Your task to perform on an android device: Empty the shopping cart on ebay.com. Search for "bose soundlink" on ebay.com, select the first entry, and add it to the cart. Image 0: 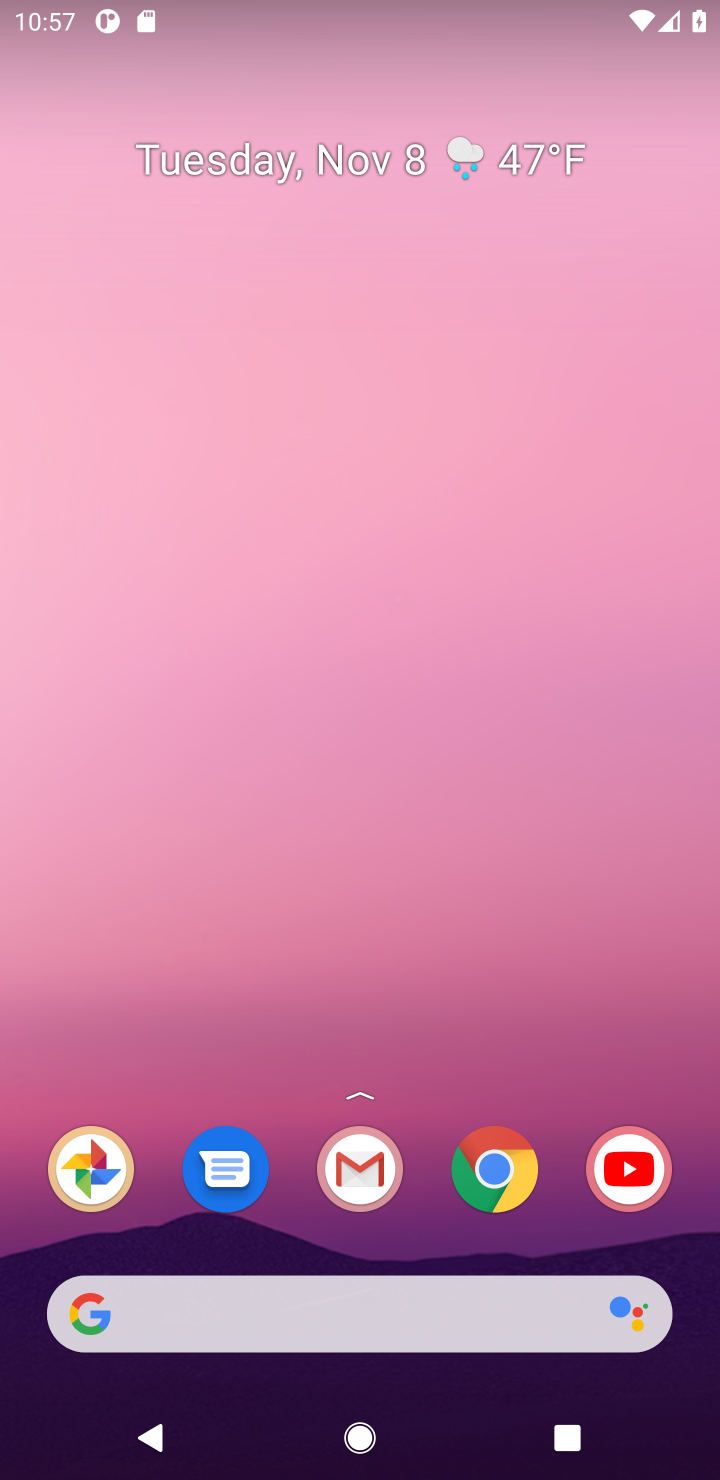
Step 0: click (495, 1166)
Your task to perform on an android device: Empty the shopping cart on ebay.com. Search for "bose soundlink" on ebay.com, select the first entry, and add it to the cart. Image 1: 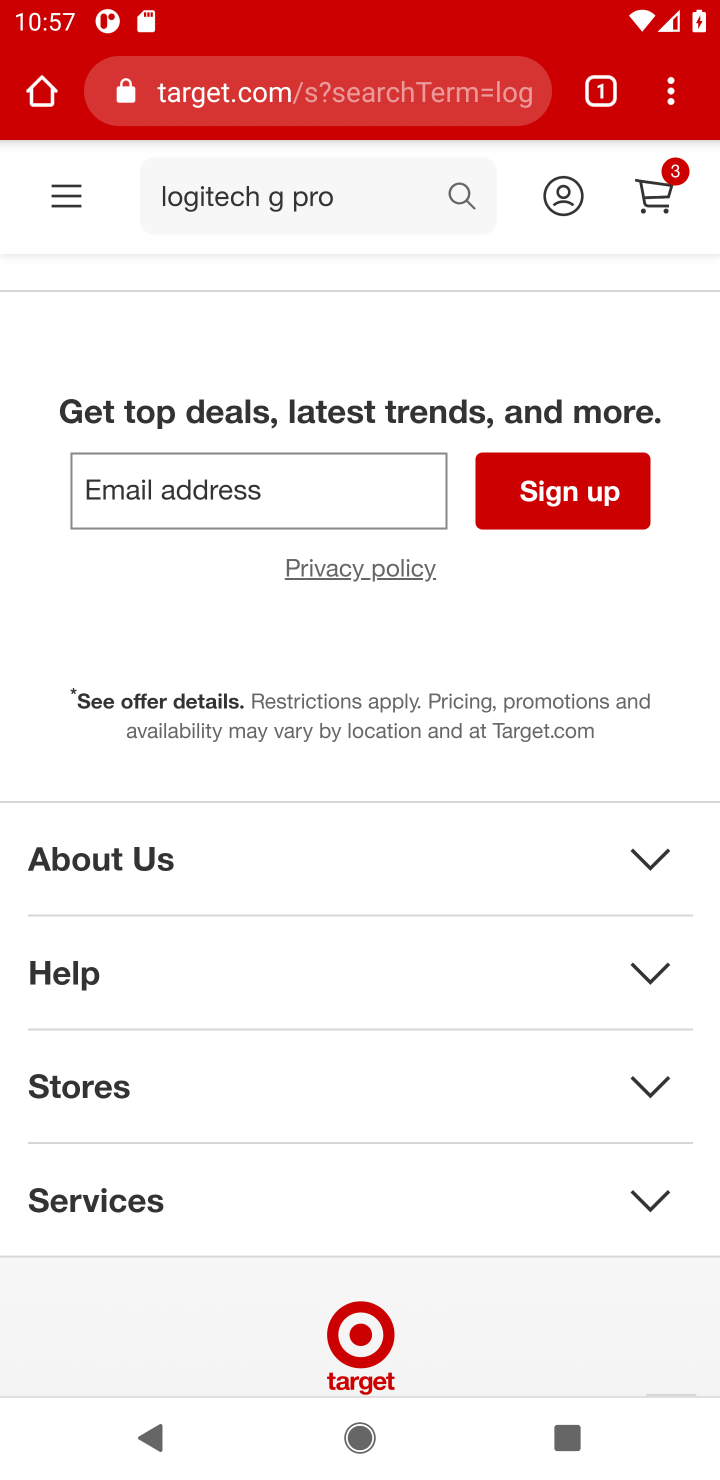
Step 1: click (368, 108)
Your task to perform on an android device: Empty the shopping cart on ebay.com. Search for "bose soundlink" on ebay.com, select the first entry, and add it to the cart. Image 2: 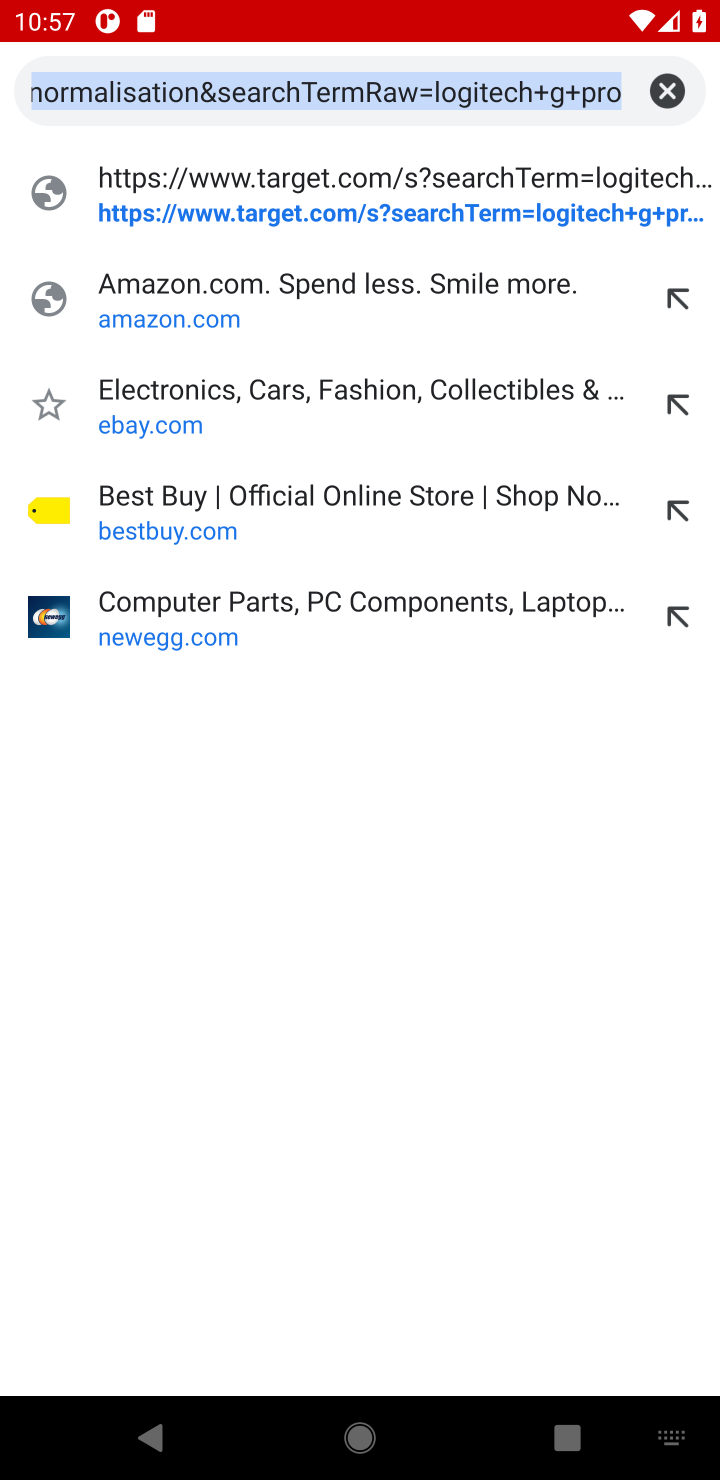
Step 2: type "ebay.com"
Your task to perform on an android device: Empty the shopping cart on ebay.com. Search for "bose soundlink" on ebay.com, select the first entry, and add it to the cart. Image 3: 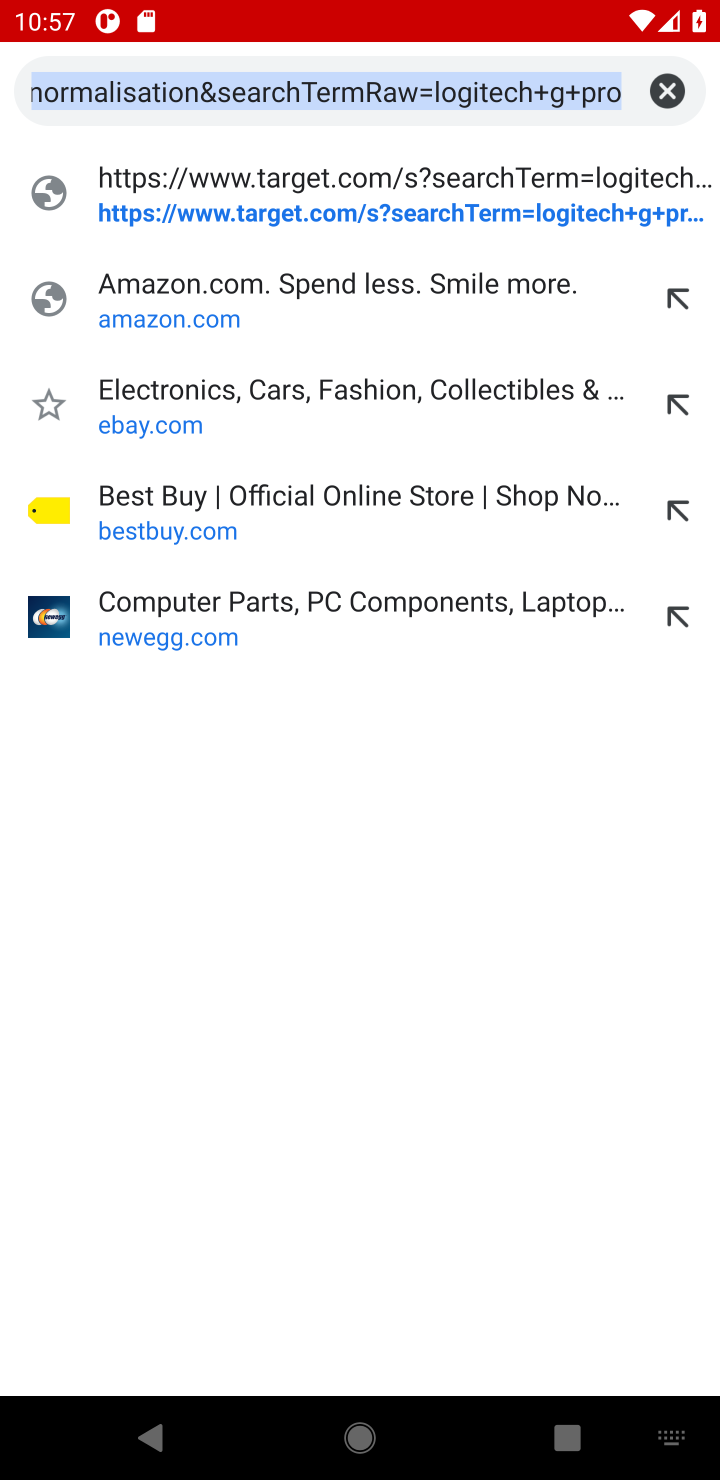
Step 3: click (665, 92)
Your task to perform on an android device: Empty the shopping cart on ebay.com. Search for "bose soundlink" on ebay.com, select the first entry, and add it to the cart. Image 4: 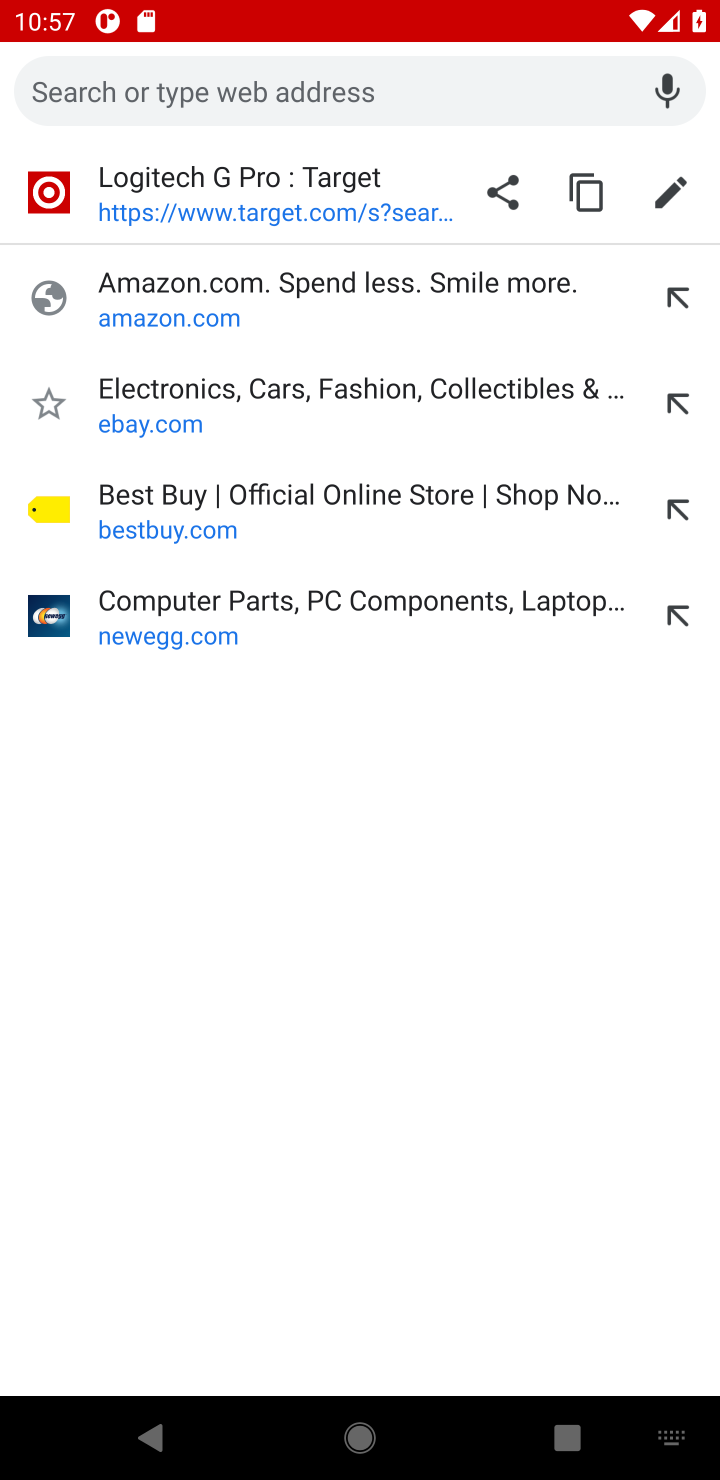
Step 4: click (198, 302)
Your task to perform on an android device: Empty the shopping cart on ebay.com. Search for "bose soundlink" on ebay.com, select the first entry, and add it to the cart. Image 5: 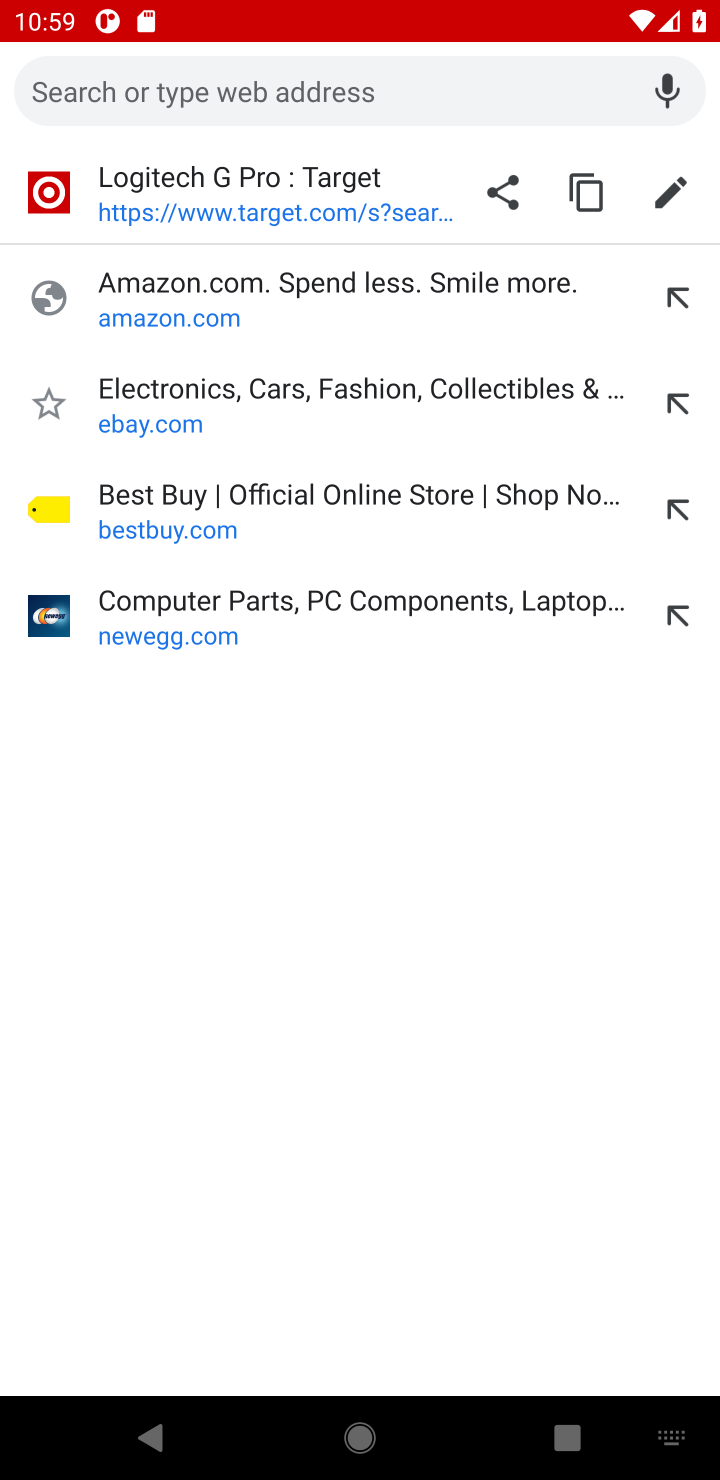
Step 5: click (330, 97)
Your task to perform on an android device: Empty the shopping cart on ebay.com. Search for "bose soundlink" on ebay.com, select the first entry, and add it to the cart. Image 6: 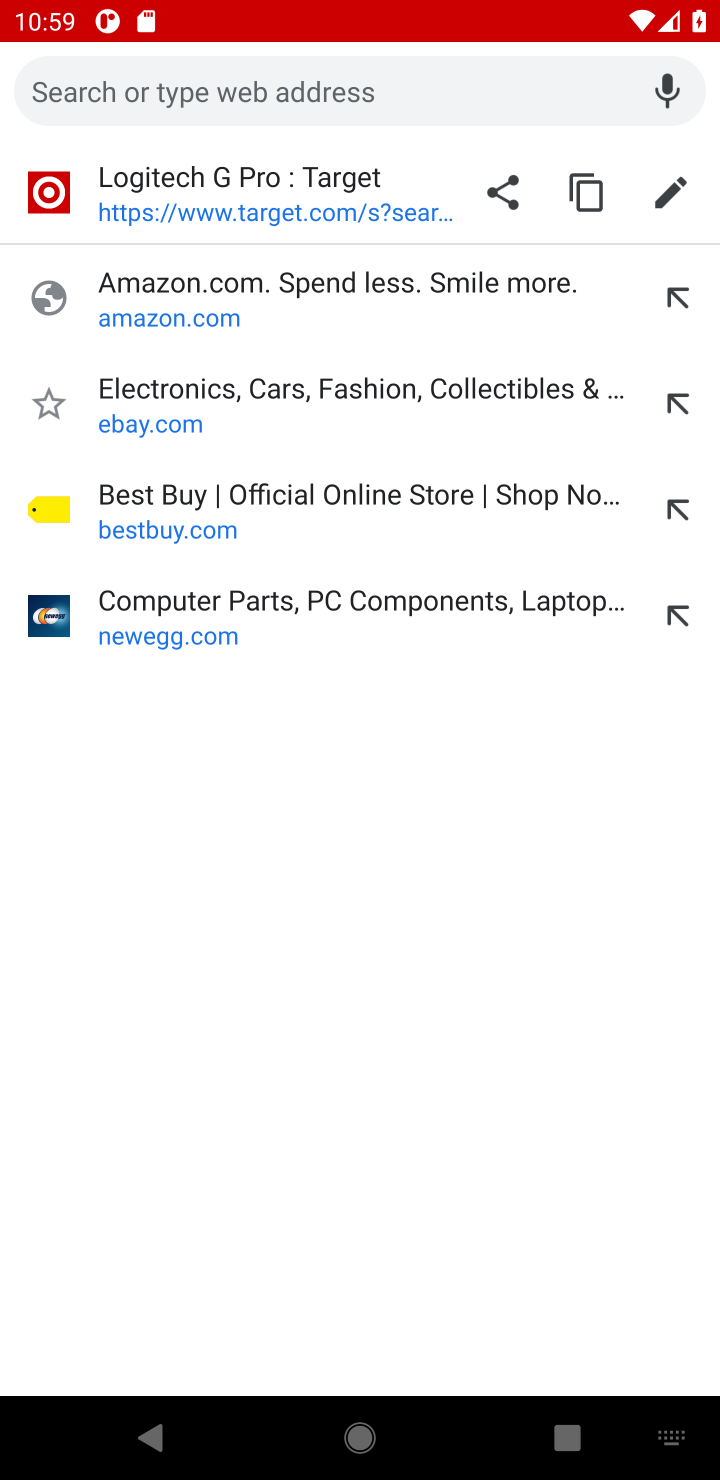
Step 6: type "ebay.com"
Your task to perform on an android device: Empty the shopping cart on ebay.com. Search for "bose soundlink" on ebay.com, select the first entry, and add it to the cart. Image 7: 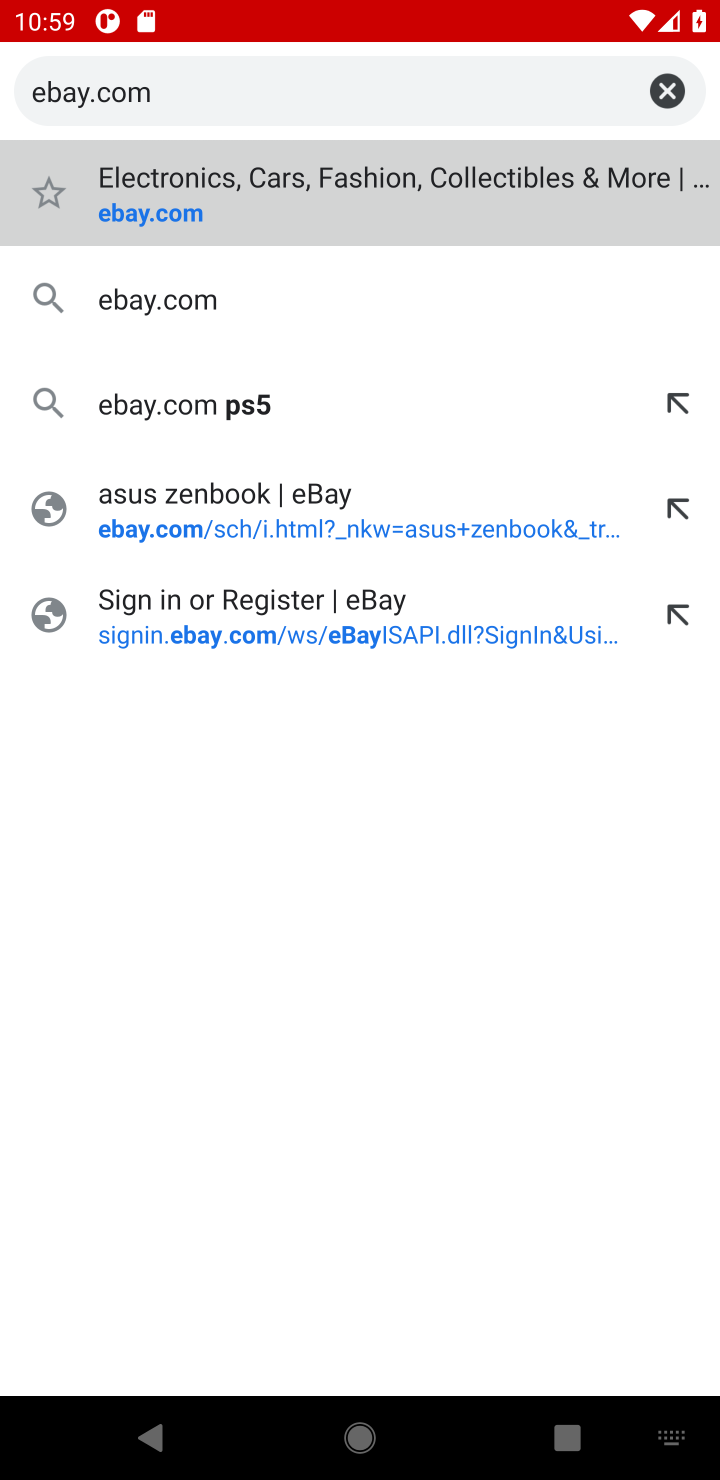
Step 7: click (158, 297)
Your task to perform on an android device: Empty the shopping cart on ebay.com. Search for "bose soundlink" on ebay.com, select the first entry, and add it to the cart. Image 8: 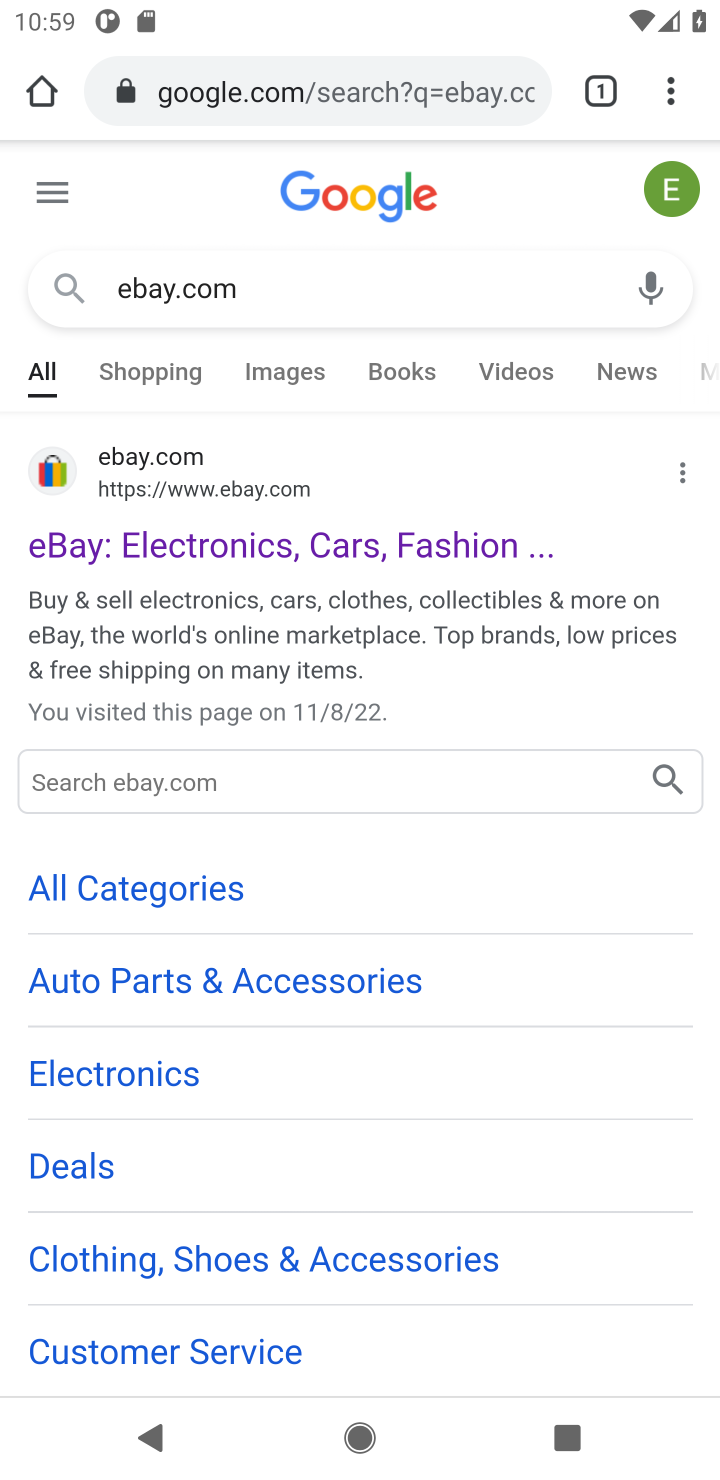
Step 8: click (237, 495)
Your task to perform on an android device: Empty the shopping cart on ebay.com. Search for "bose soundlink" on ebay.com, select the first entry, and add it to the cart. Image 9: 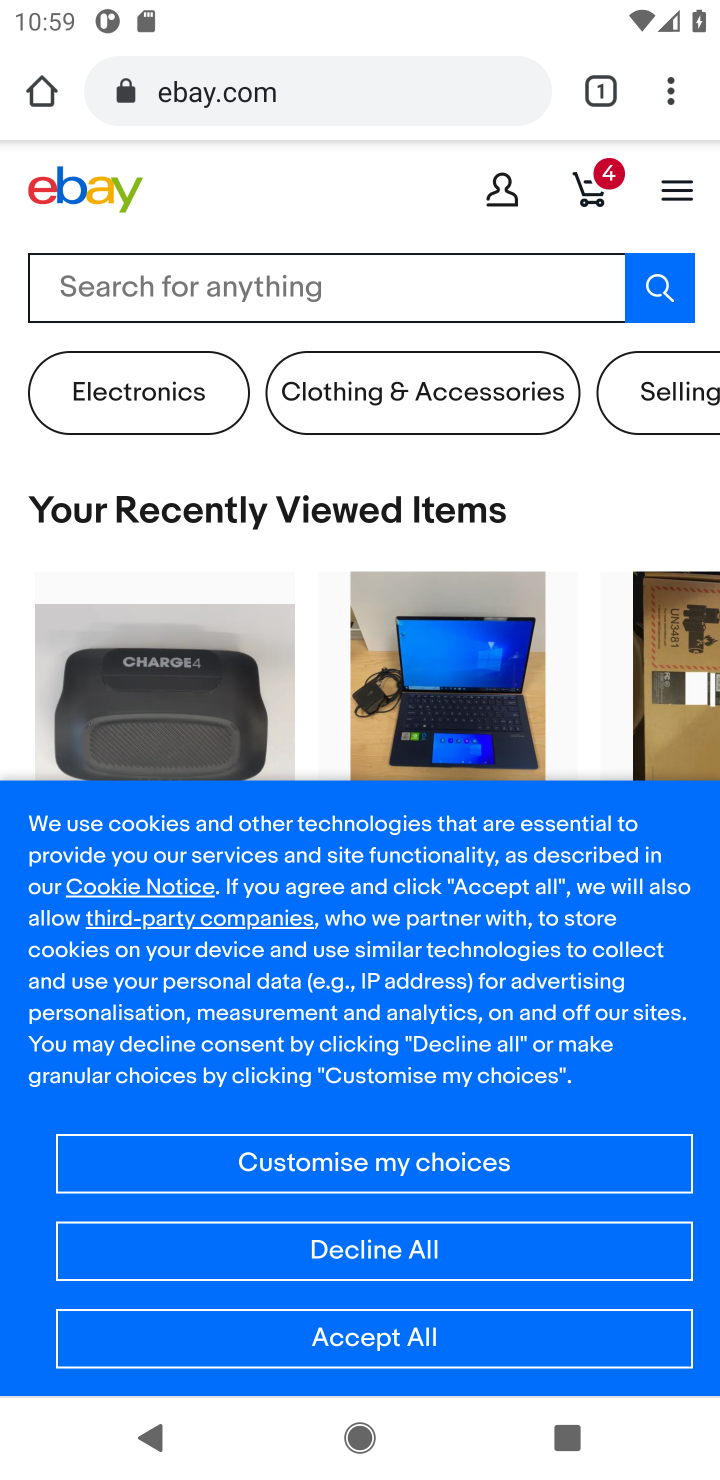
Step 9: click (595, 193)
Your task to perform on an android device: Empty the shopping cart on ebay.com. Search for "bose soundlink" on ebay.com, select the first entry, and add it to the cart. Image 10: 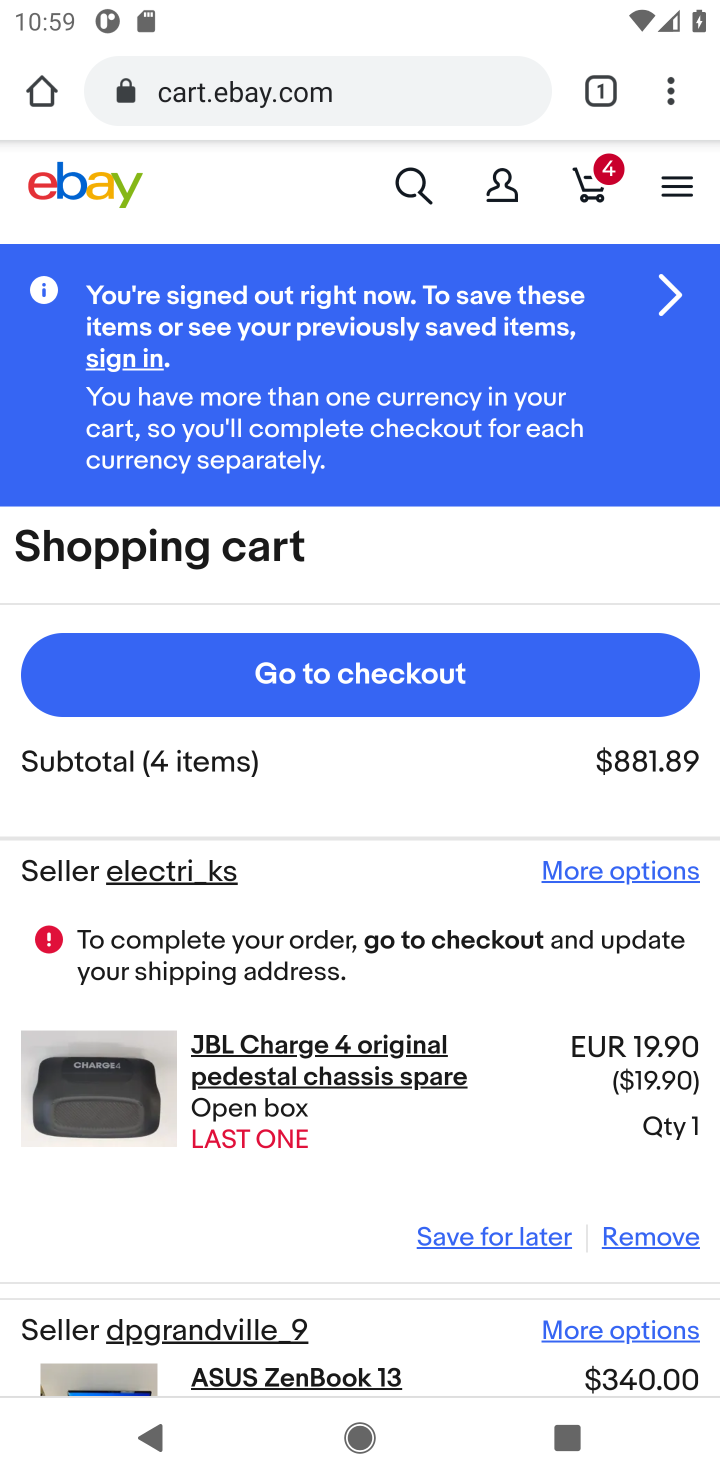
Step 10: click (640, 1234)
Your task to perform on an android device: Empty the shopping cart on ebay.com. Search for "bose soundlink" on ebay.com, select the first entry, and add it to the cart. Image 11: 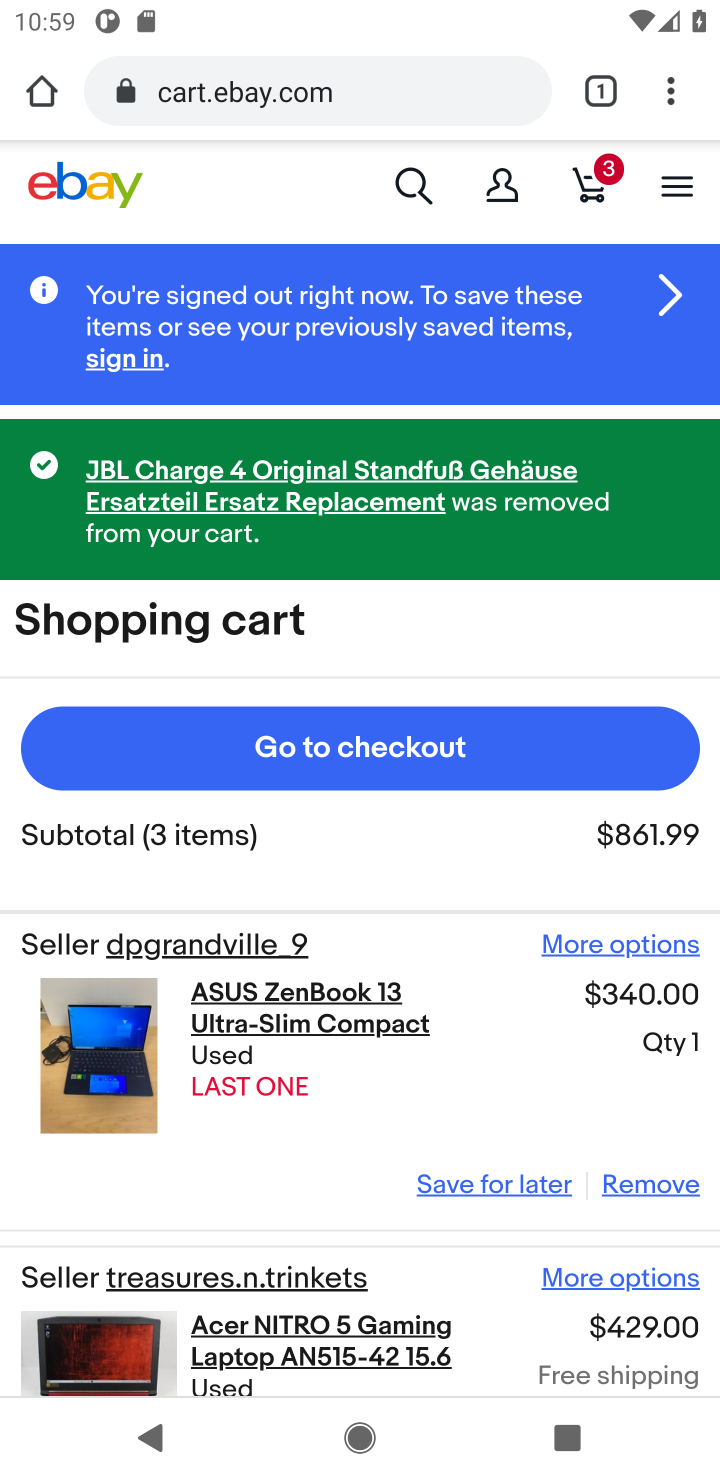
Step 11: click (665, 1177)
Your task to perform on an android device: Empty the shopping cart on ebay.com. Search for "bose soundlink" on ebay.com, select the first entry, and add it to the cart. Image 12: 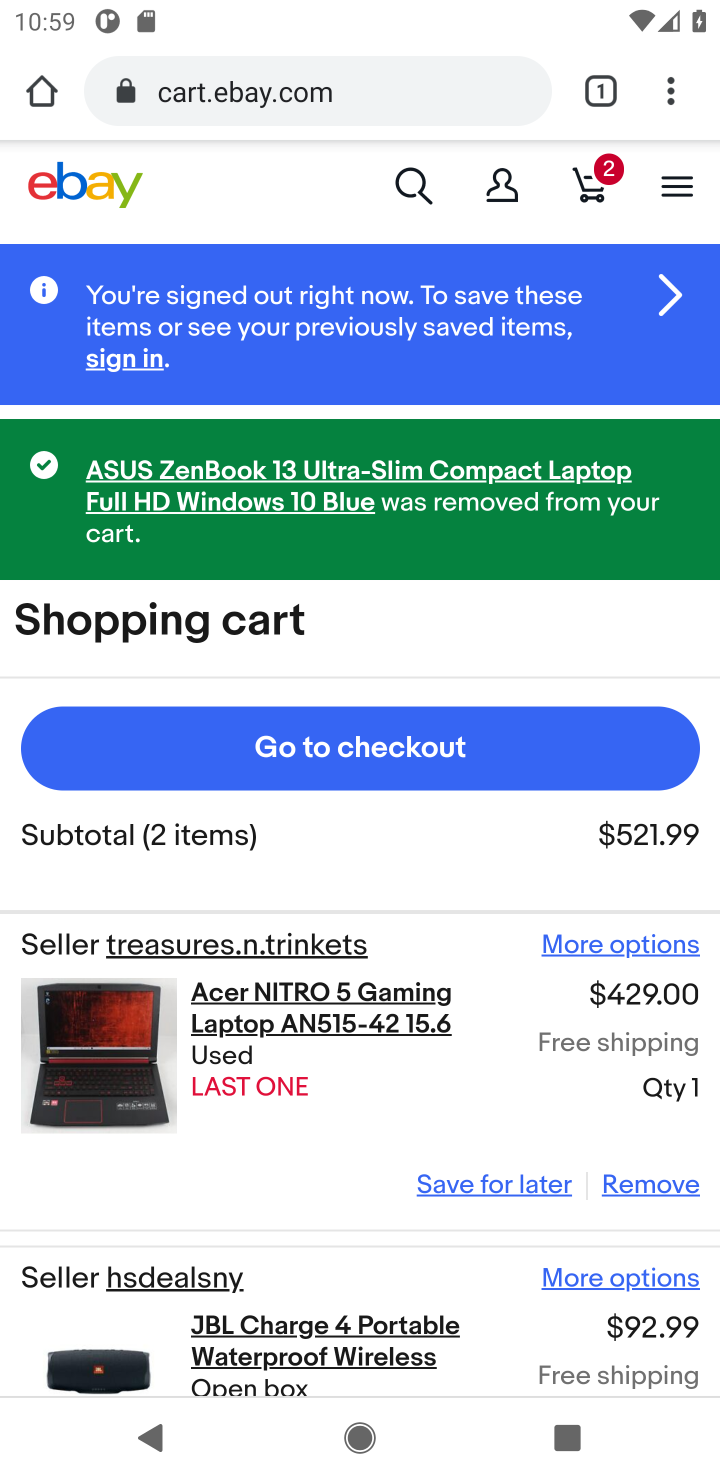
Step 12: click (656, 1189)
Your task to perform on an android device: Empty the shopping cart on ebay.com. Search for "bose soundlink" on ebay.com, select the first entry, and add it to the cart. Image 13: 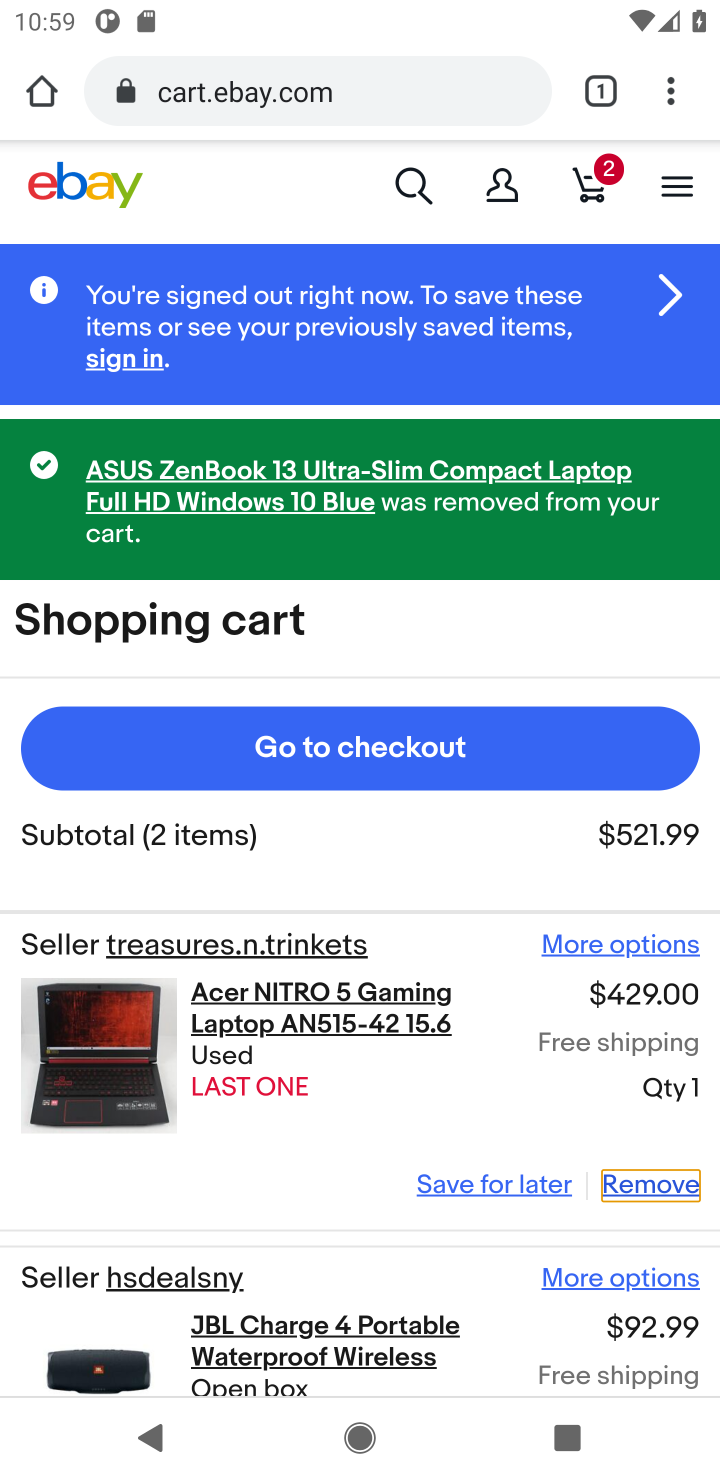
Step 13: click (656, 1189)
Your task to perform on an android device: Empty the shopping cart on ebay.com. Search for "bose soundlink" on ebay.com, select the first entry, and add it to the cart. Image 14: 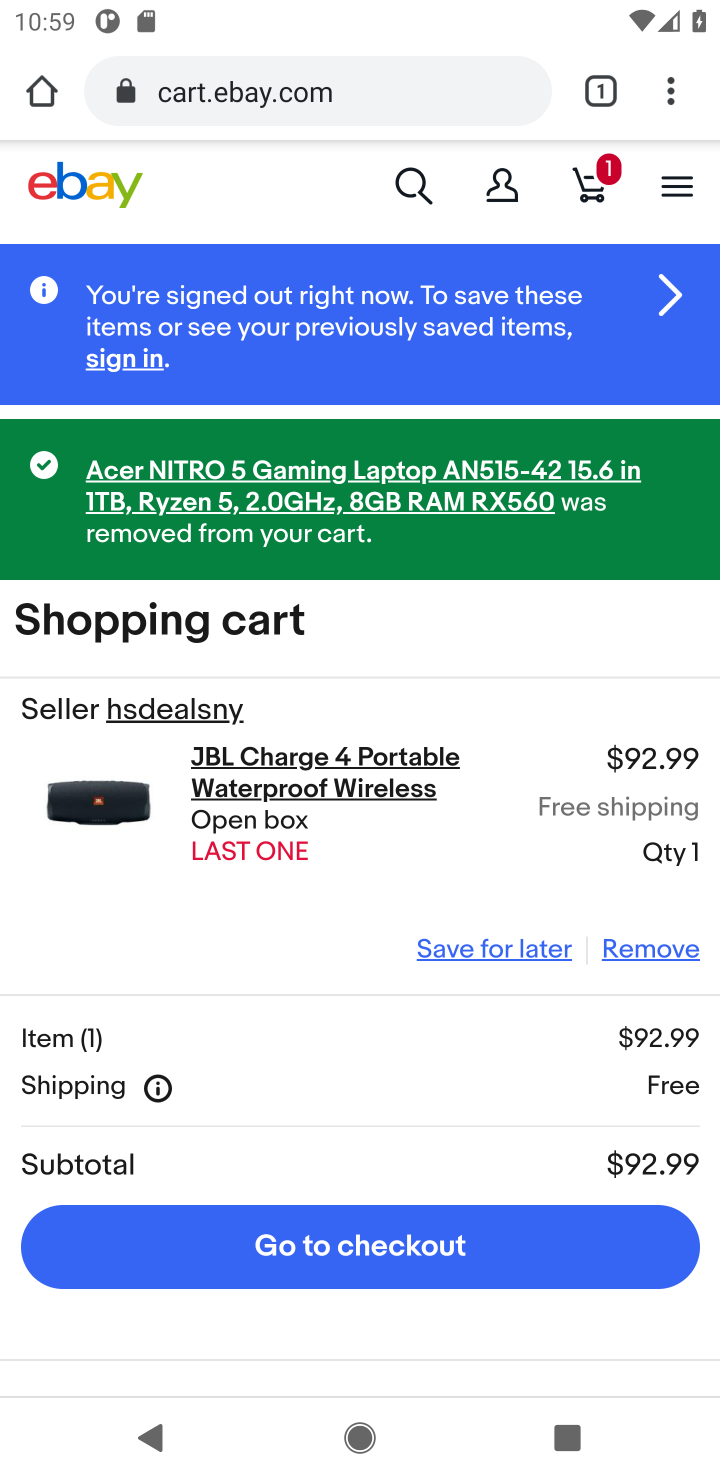
Step 14: click (646, 942)
Your task to perform on an android device: Empty the shopping cart on ebay.com. Search for "bose soundlink" on ebay.com, select the first entry, and add it to the cart. Image 15: 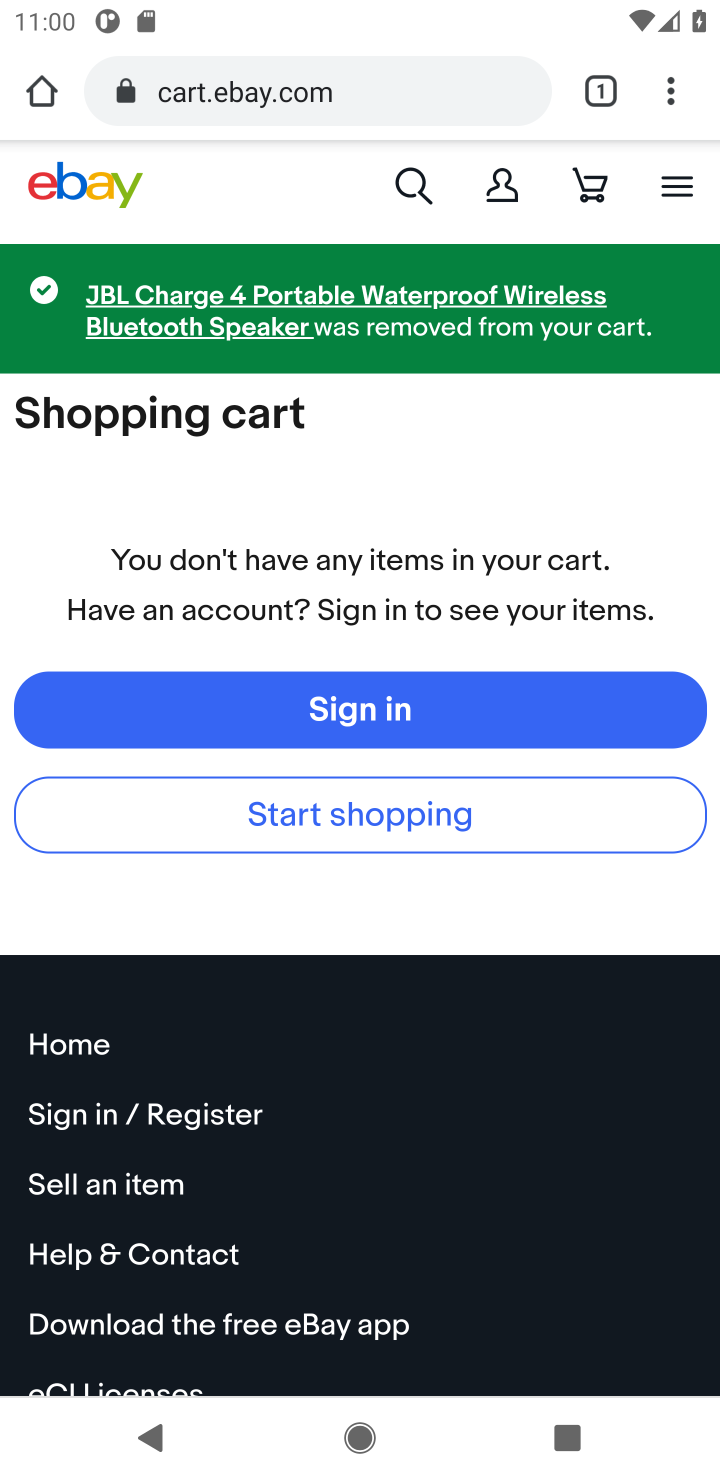
Step 15: click (413, 186)
Your task to perform on an android device: Empty the shopping cart on ebay.com. Search for "bose soundlink" on ebay.com, select the first entry, and add it to the cart. Image 16: 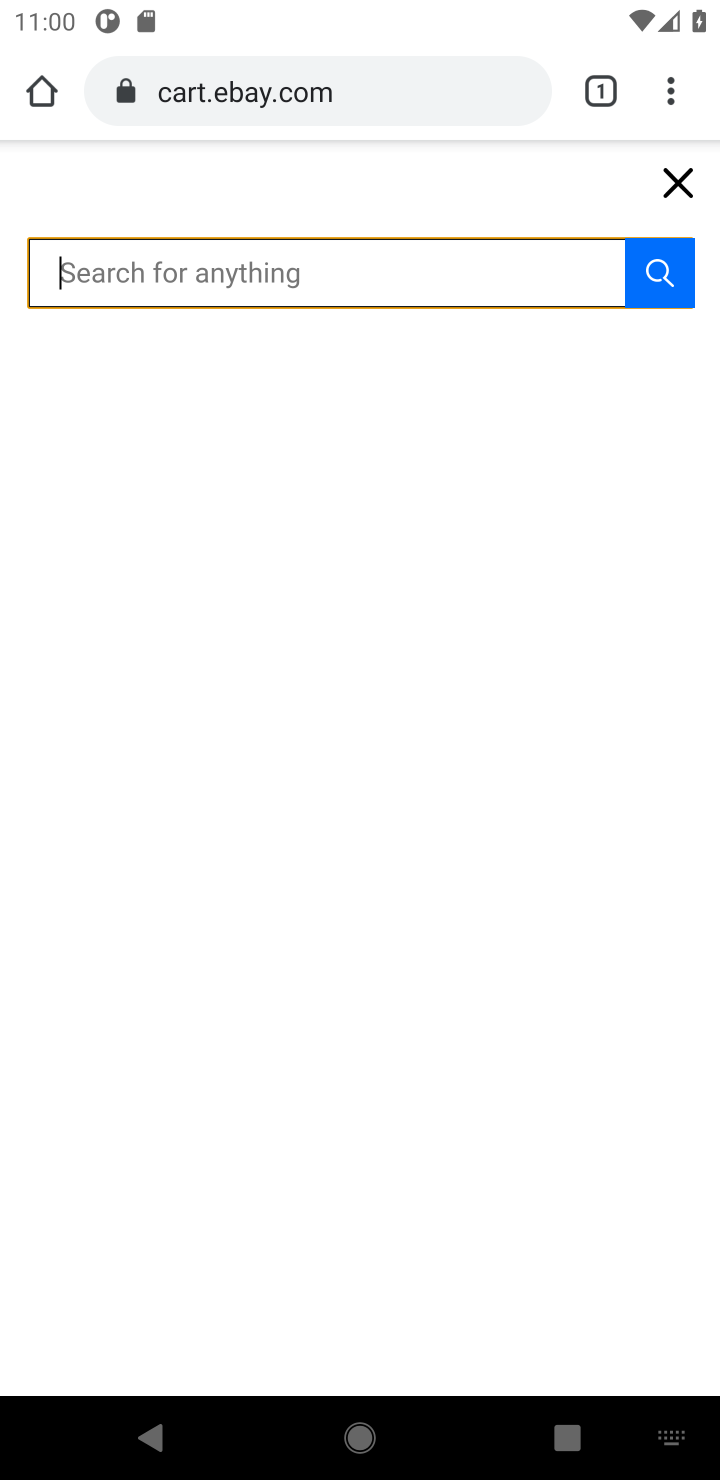
Step 16: type "bose soundlink"
Your task to perform on an android device: Empty the shopping cart on ebay.com. Search for "bose soundlink" on ebay.com, select the first entry, and add it to the cart. Image 17: 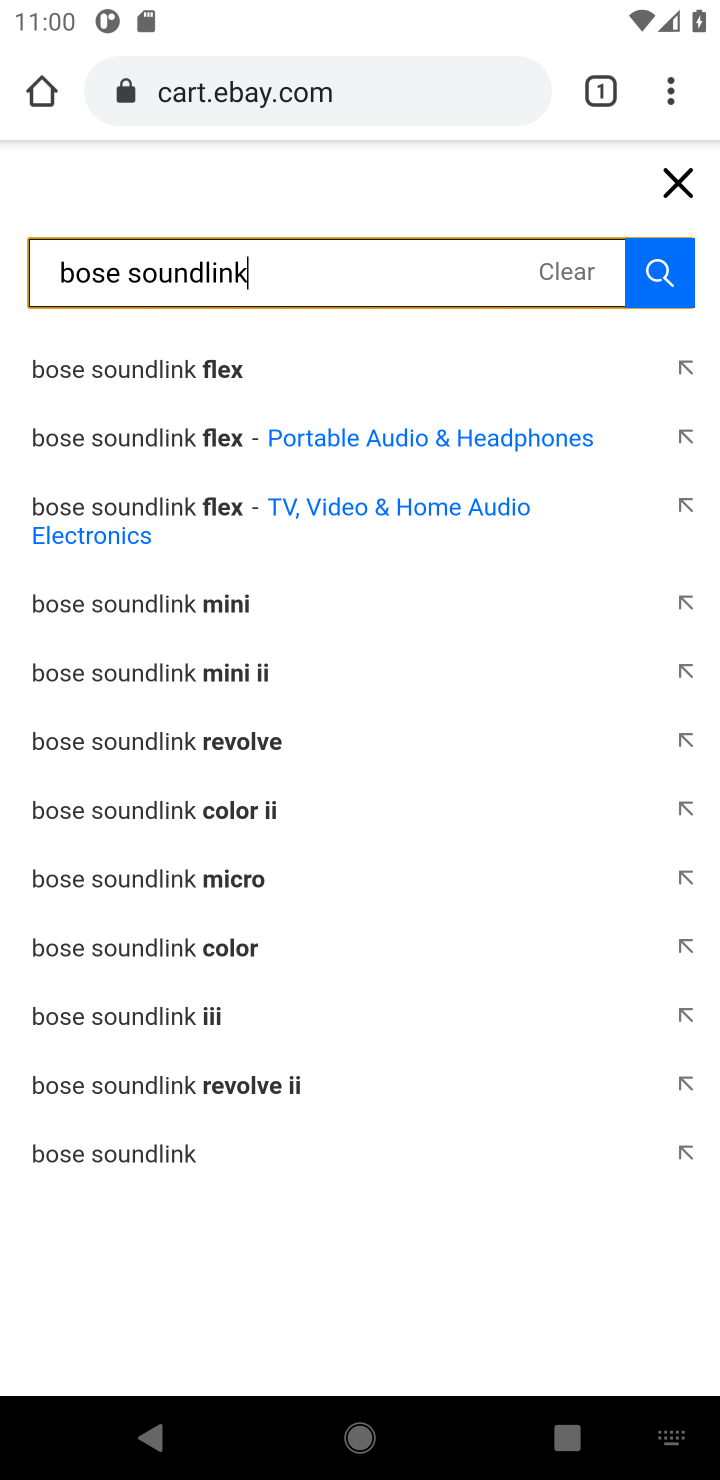
Step 17: click (151, 1146)
Your task to perform on an android device: Empty the shopping cart on ebay.com. Search for "bose soundlink" on ebay.com, select the first entry, and add it to the cart. Image 18: 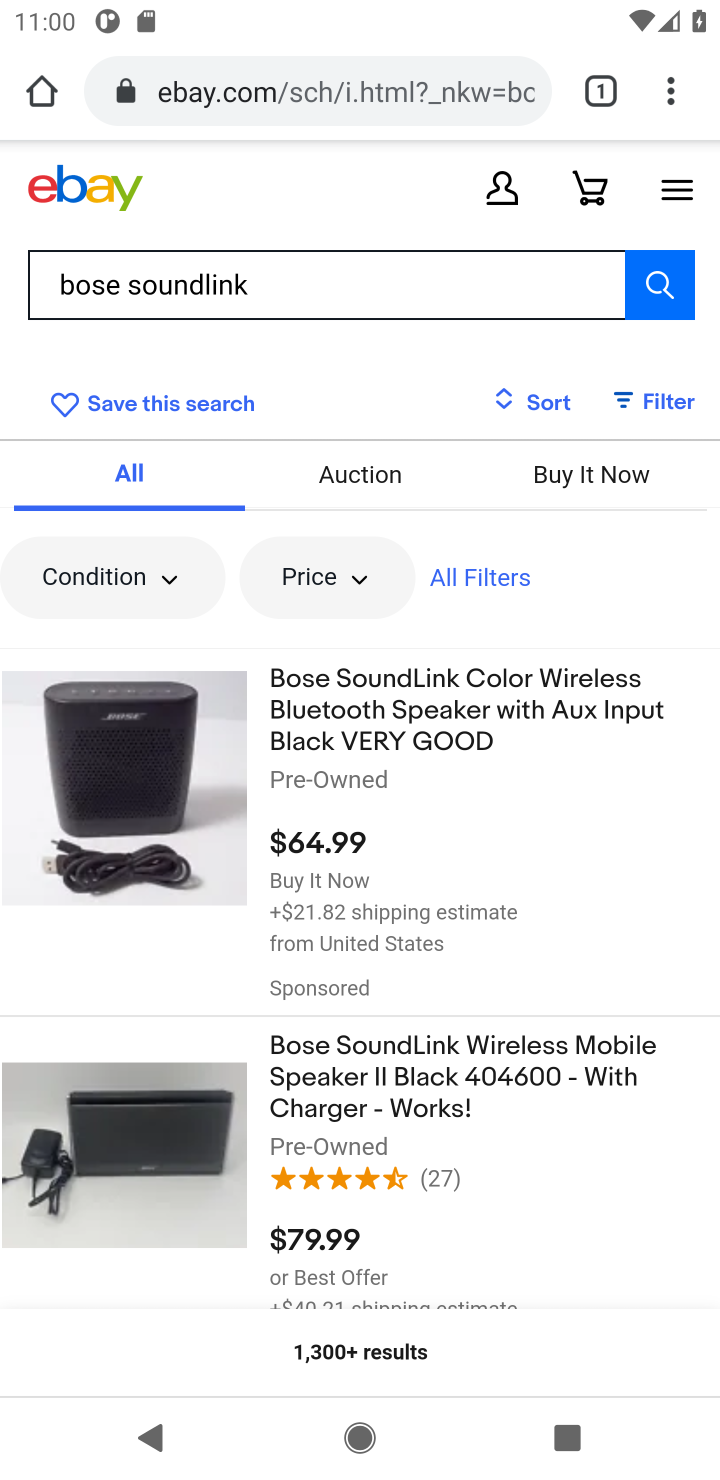
Step 18: click (73, 750)
Your task to perform on an android device: Empty the shopping cart on ebay.com. Search for "bose soundlink" on ebay.com, select the first entry, and add it to the cart. Image 19: 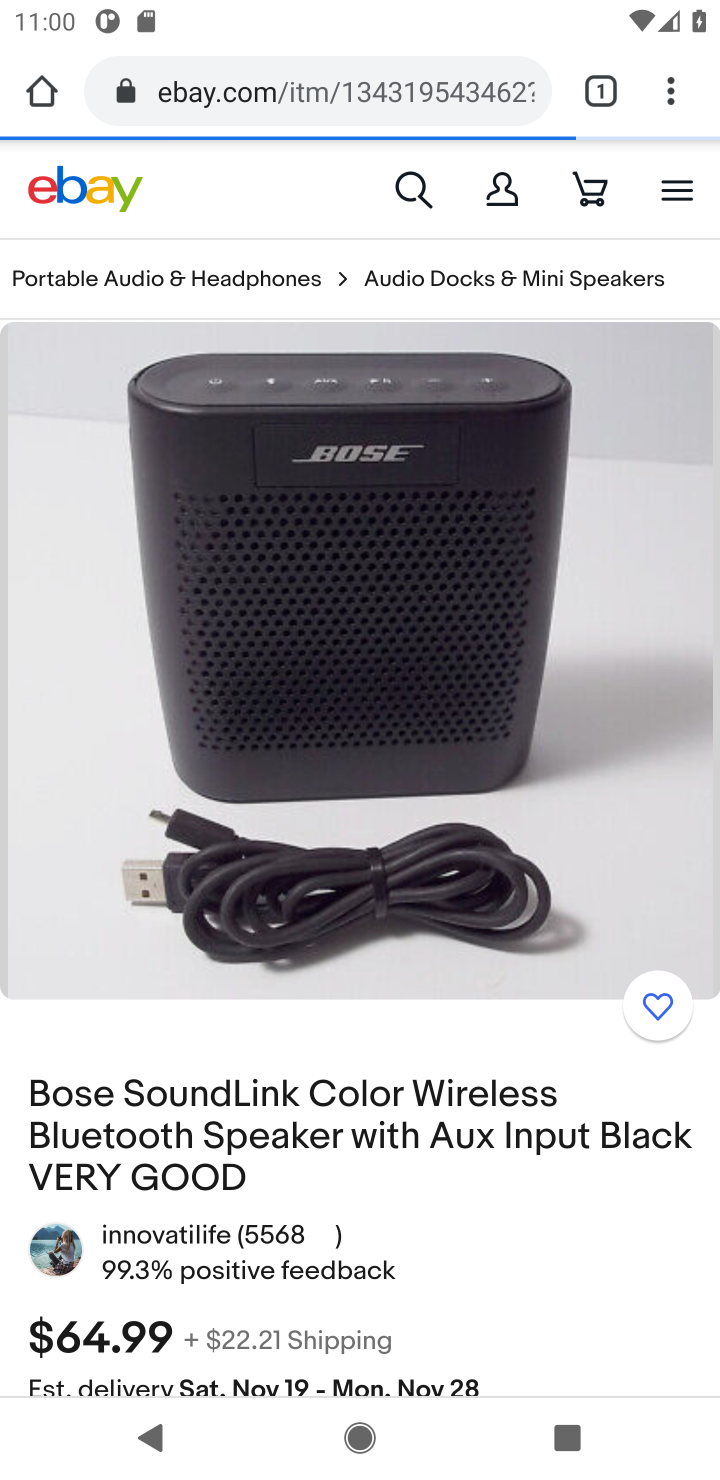
Step 19: drag from (528, 1022) to (603, 562)
Your task to perform on an android device: Empty the shopping cart on ebay.com. Search for "bose soundlink" on ebay.com, select the first entry, and add it to the cart. Image 20: 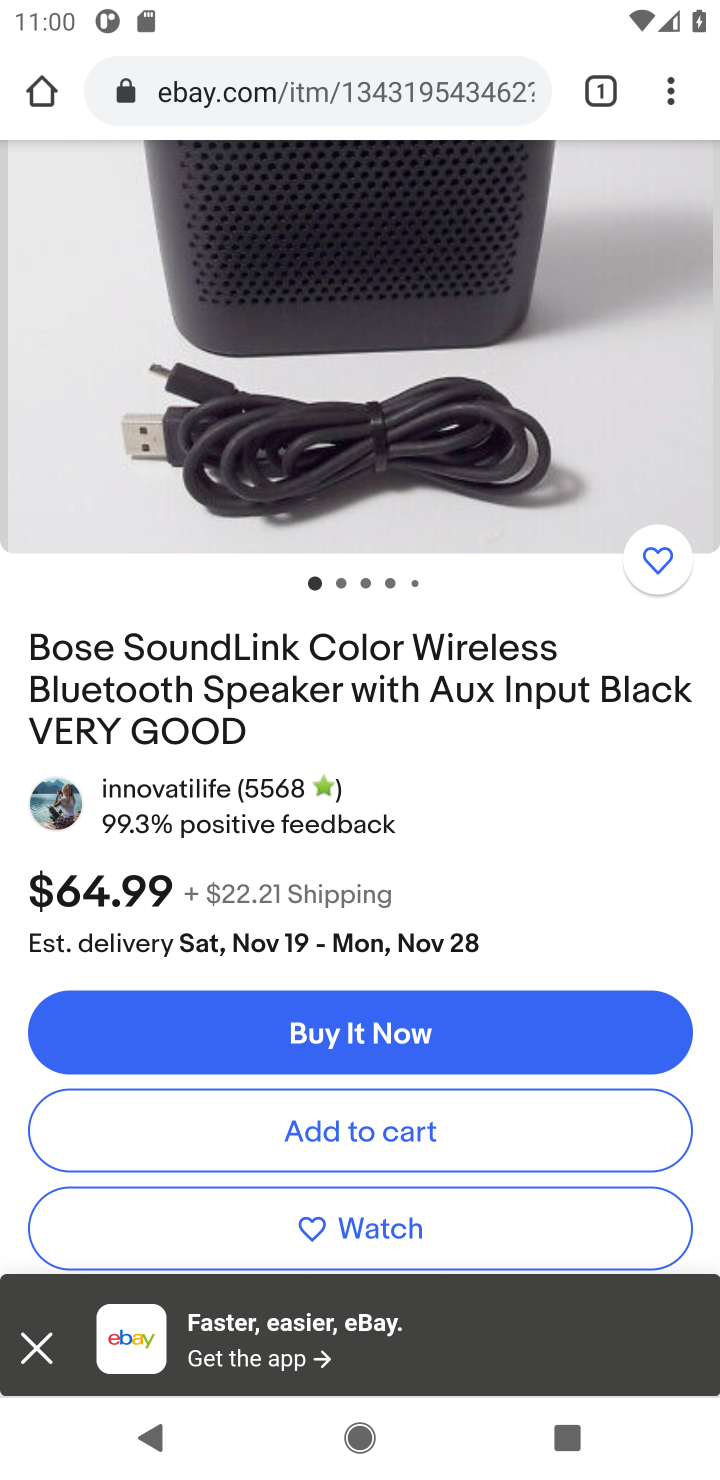
Step 20: click (388, 1125)
Your task to perform on an android device: Empty the shopping cart on ebay.com. Search for "bose soundlink" on ebay.com, select the first entry, and add it to the cart. Image 21: 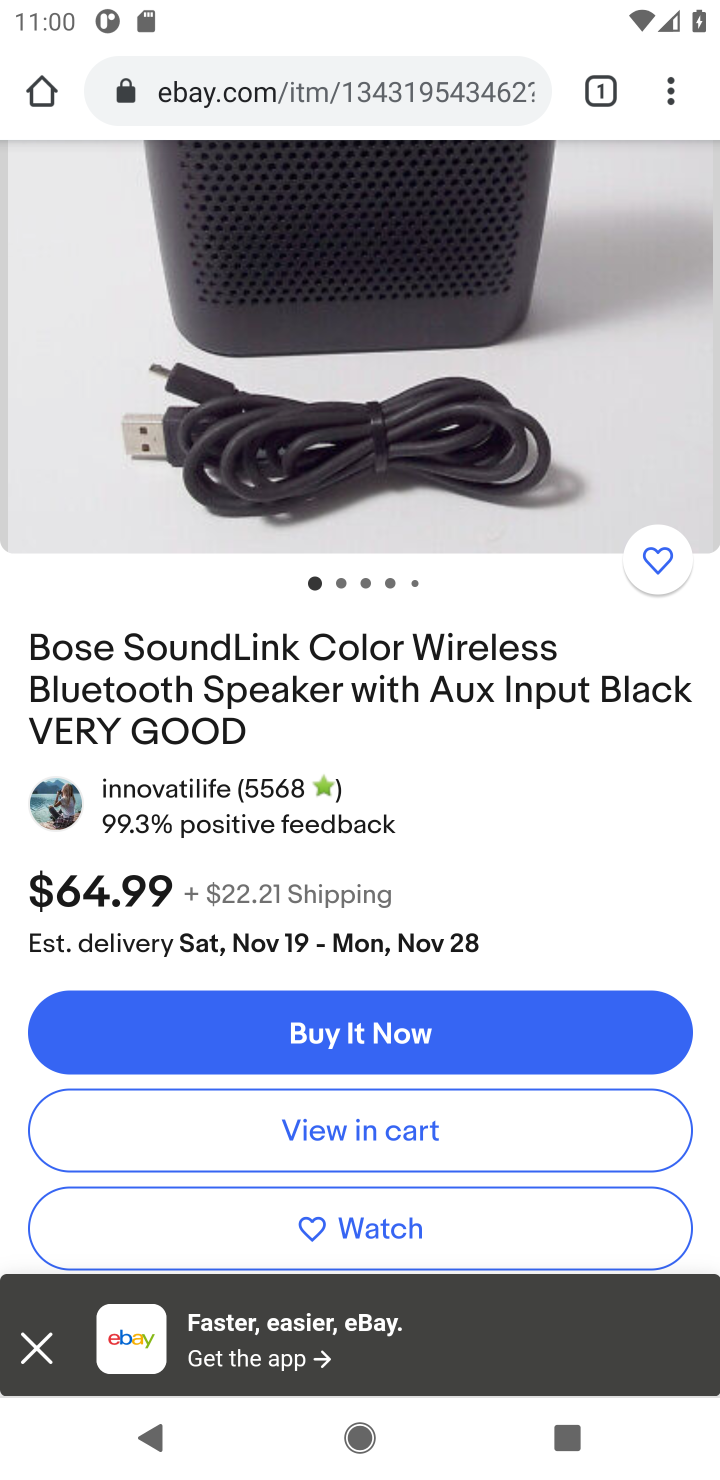
Step 21: click (388, 1125)
Your task to perform on an android device: Empty the shopping cart on ebay.com. Search for "bose soundlink" on ebay.com, select the first entry, and add it to the cart. Image 22: 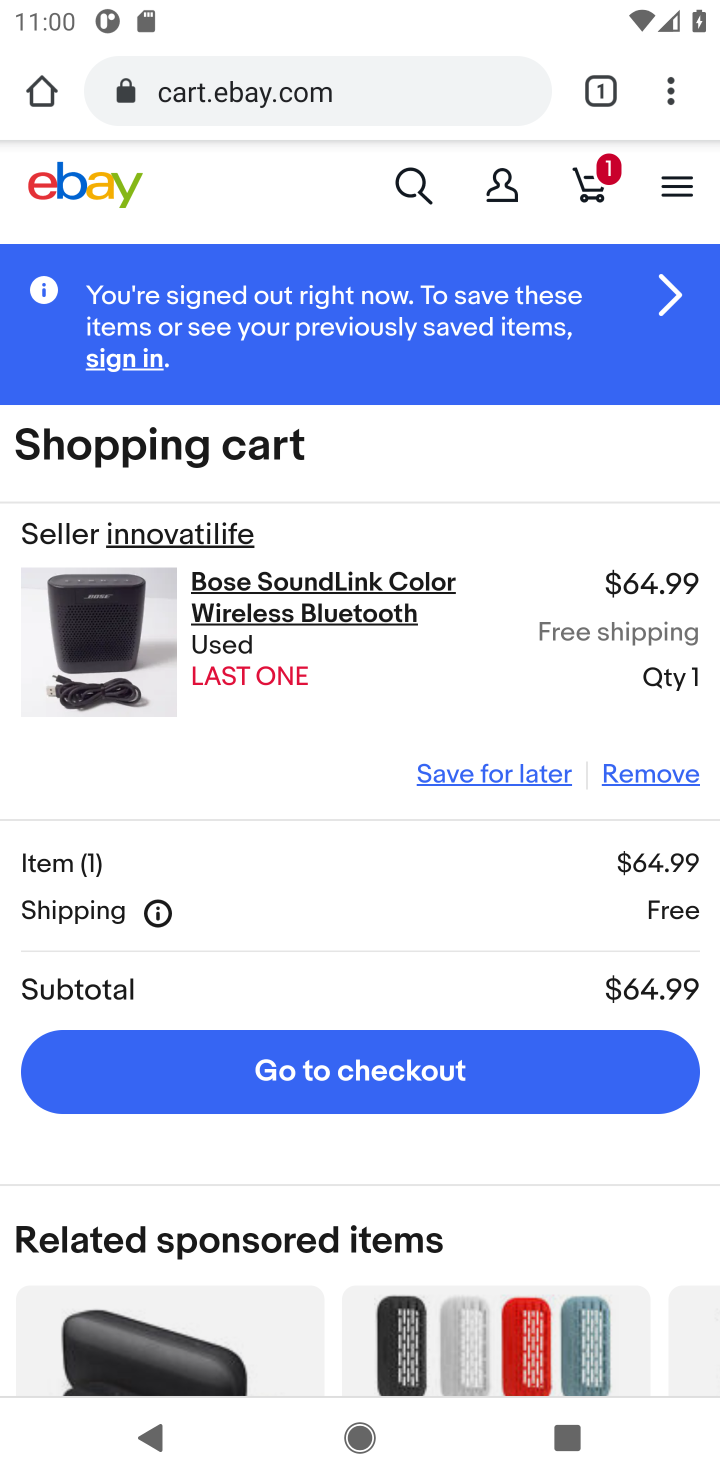
Step 22: task complete